Your task to perform on an android device: turn notification dots on Image 0: 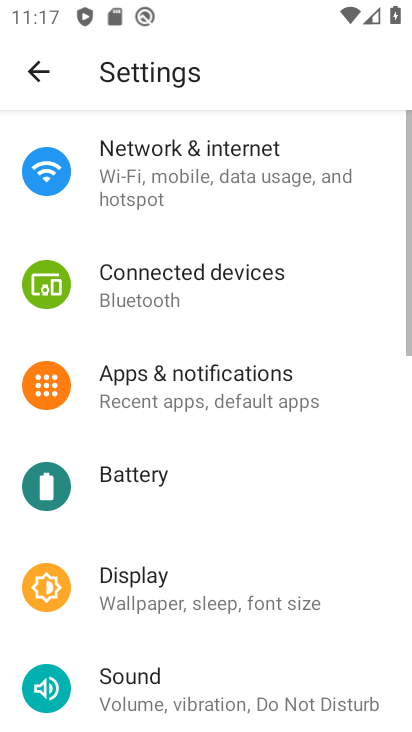
Step 0: drag from (200, 667) to (204, 724)
Your task to perform on an android device: turn notification dots on Image 1: 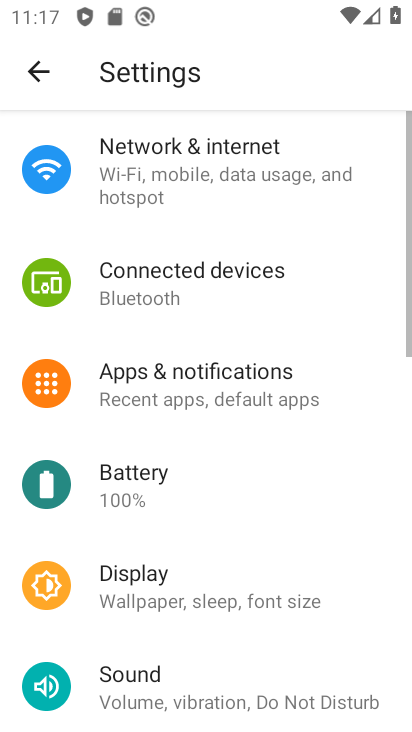
Step 1: click (223, 385)
Your task to perform on an android device: turn notification dots on Image 2: 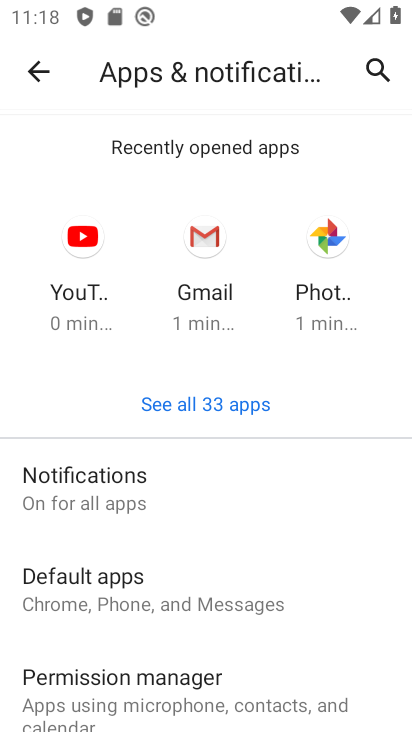
Step 2: click (154, 497)
Your task to perform on an android device: turn notification dots on Image 3: 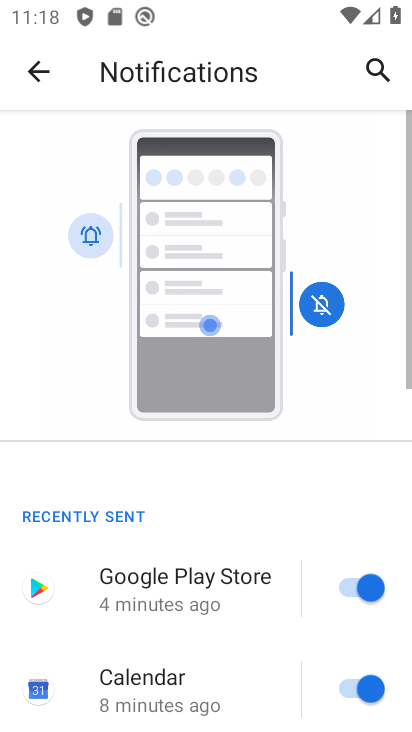
Step 3: drag from (200, 617) to (259, 247)
Your task to perform on an android device: turn notification dots on Image 4: 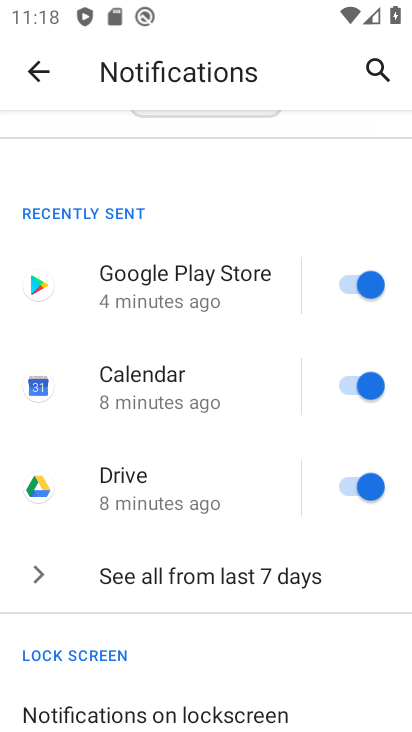
Step 4: drag from (222, 583) to (270, 180)
Your task to perform on an android device: turn notification dots on Image 5: 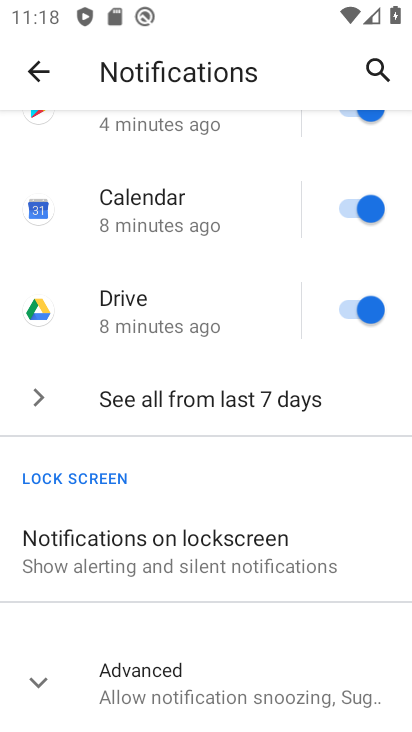
Step 5: click (160, 689)
Your task to perform on an android device: turn notification dots on Image 6: 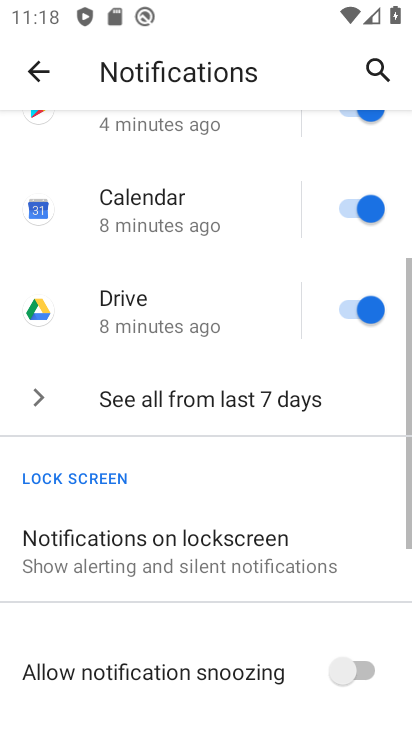
Step 6: task complete